Your task to perform on an android device: Go to Amazon Image 0: 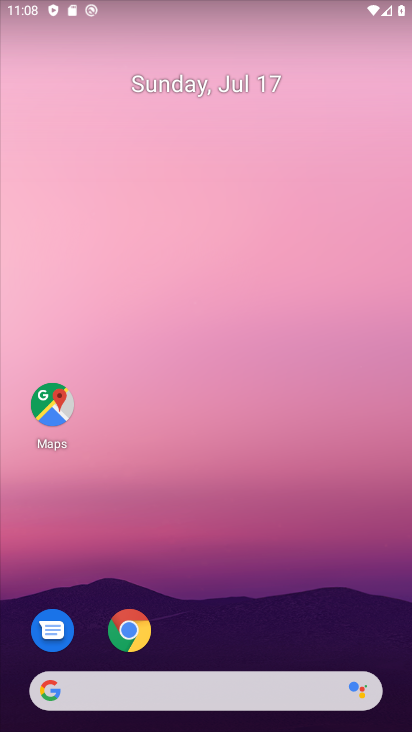
Step 0: click (127, 642)
Your task to perform on an android device: Go to Amazon Image 1: 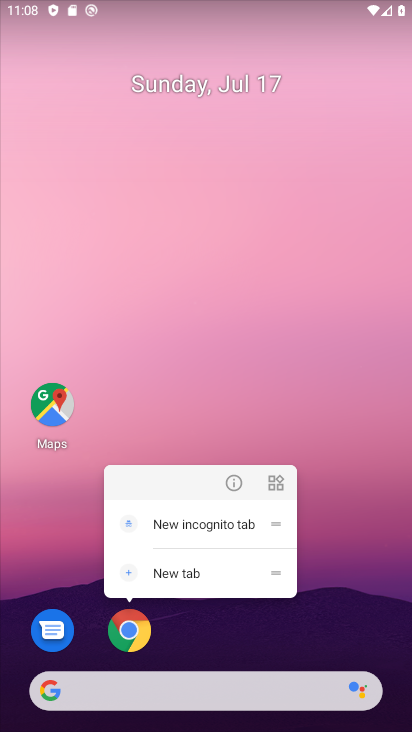
Step 1: click (133, 630)
Your task to perform on an android device: Go to Amazon Image 2: 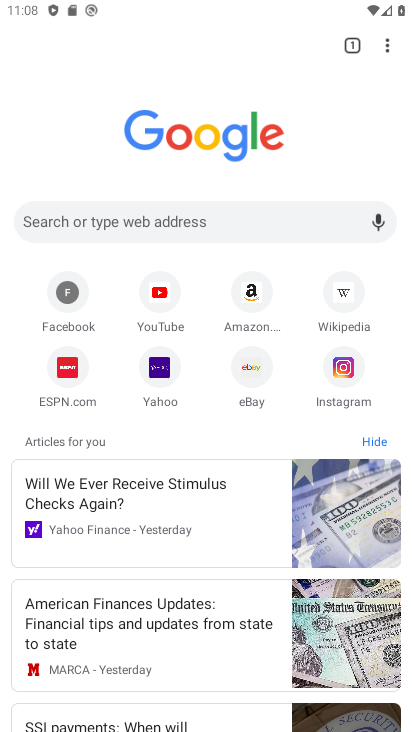
Step 2: click (263, 311)
Your task to perform on an android device: Go to Amazon Image 3: 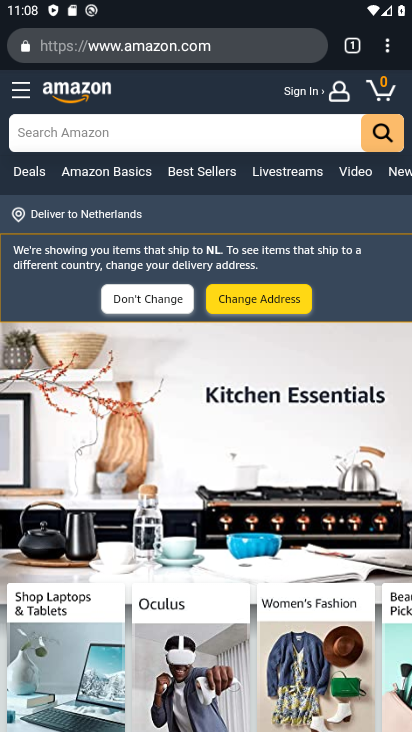
Step 3: task complete